Your task to perform on an android device: Search for vegetarian restaurants on Maps Image 0: 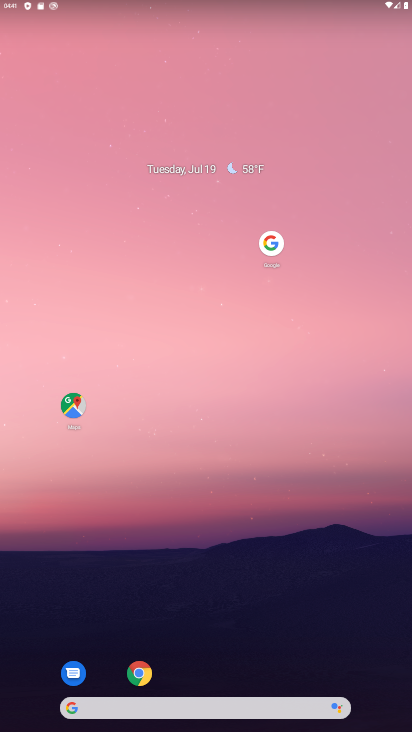
Step 0: click (73, 409)
Your task to perform on an android device: Search for vegetarian restaurants on Maps Image 1: 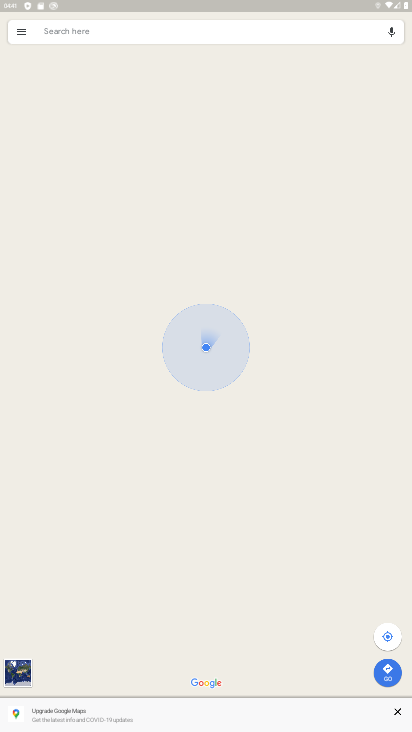
Step 1: type "vegetarian restaurants"
Your task to perform on an android device: Search for vegetarian restaurants on Maps Image 2: 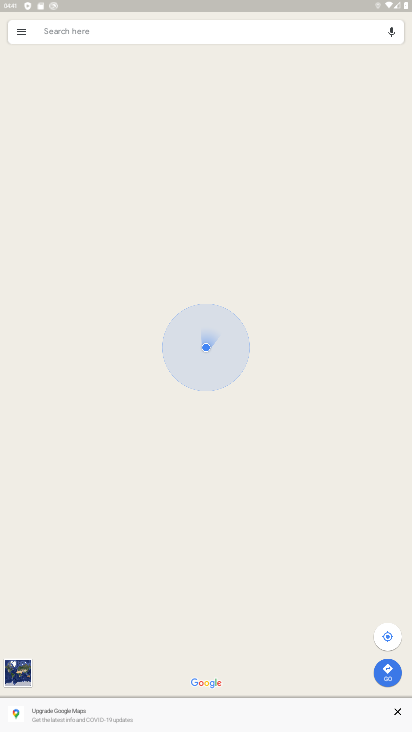
Step 2: click (62, 27)
Your task to perform on an android device: Search for vegetarian restaurants on Maps Image 3: 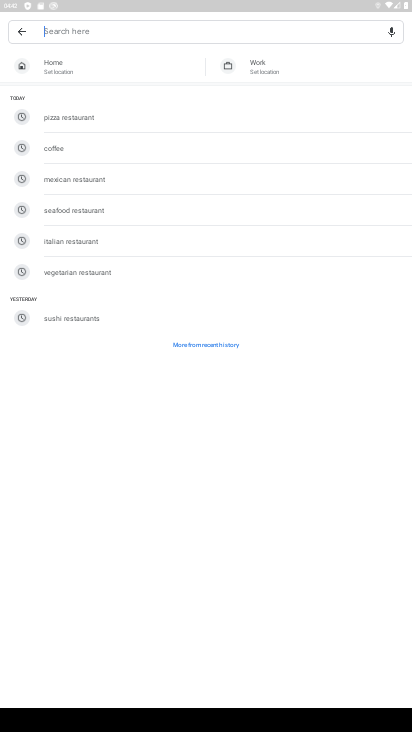
Step 3: click (105, 269)
Your task to perform on an android device: Search for vegetarian restaurants on Maps Image 4: 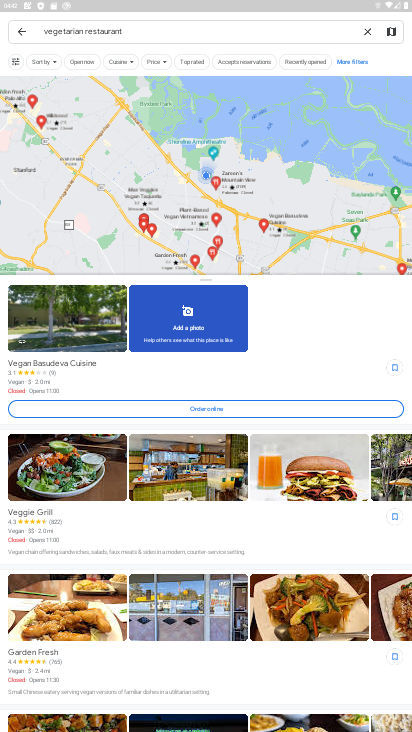
Step 4: task complete